Your task to perform on an android device: Go to ESPN.com Image 0: 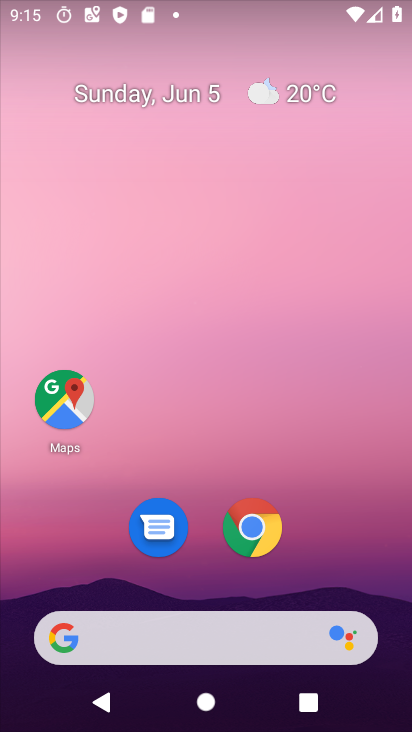
Step 0: drag from (345, 553) to (376, 61)
Your task to perform on an android device: Go to ESPN.com Image 1: 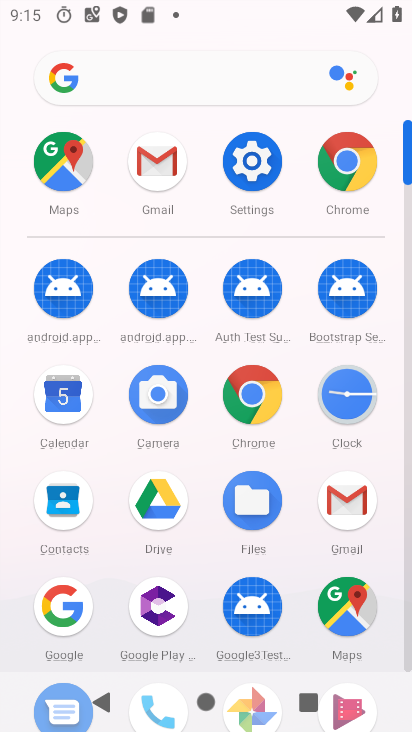
Step 1: click (341, 160)
Your task to perform on an android device: Go to ESPN.com Image 2: 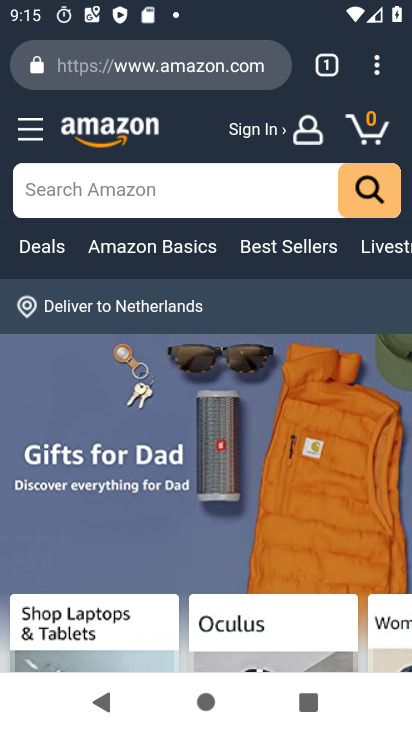
Step 2: click (233, 81)
Your task to perform on an android device: Go to ESPN.com Image 3: 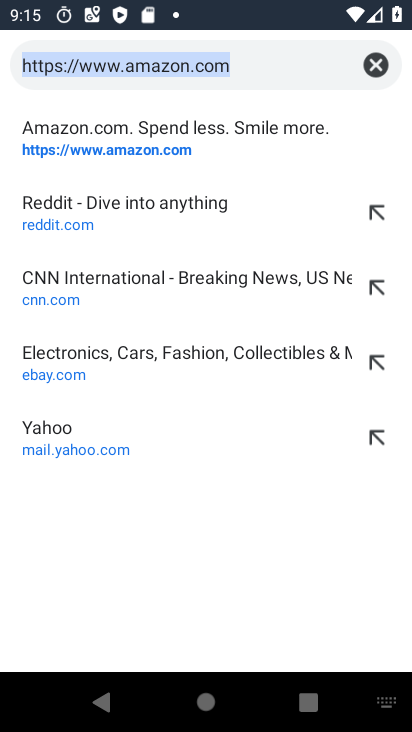
Step 3: click (382, 80)
Your task to perform on an android device: Go to ESPN.com Image 4: 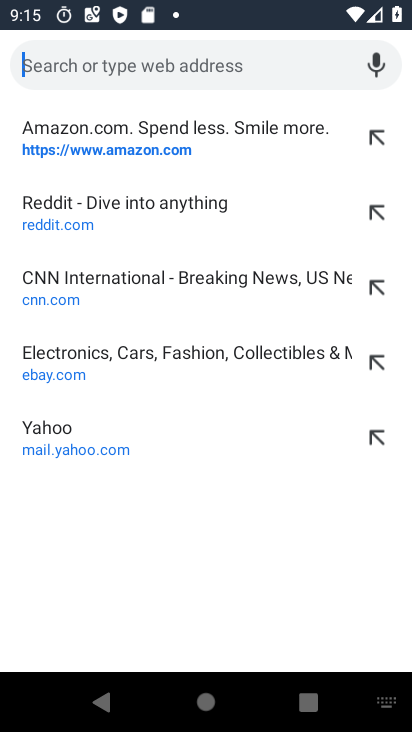
Step 4: type "espan"
Your task to perform on an android device: Go to ESPN.com Image 5: 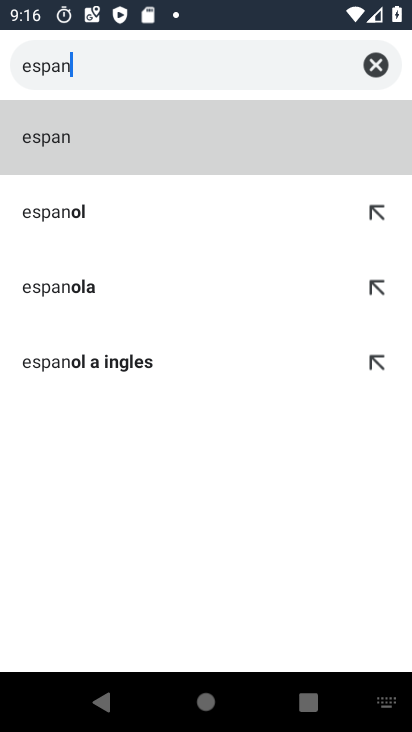
Step 5: click (382, 76)
Your task to perform on an android device: Go to ESPN.com Image 6: 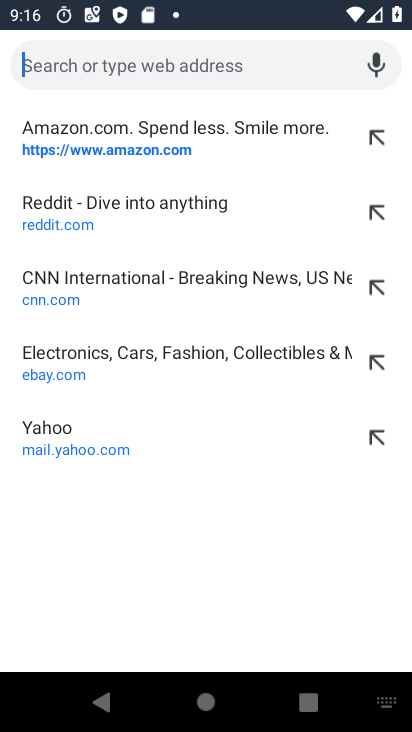
Step 6: type "espn"
Your task to perform on an android device: Go to ESPN.com Image 7: 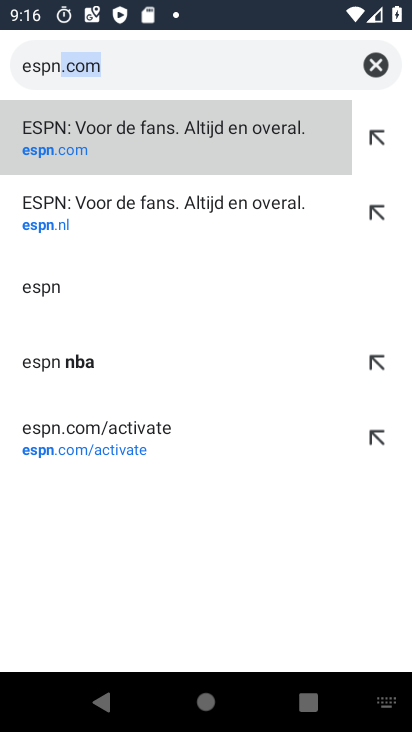
Step 7: click (82, 155)
Your task to perform on an android device: Go to ESPN.com Image 8: 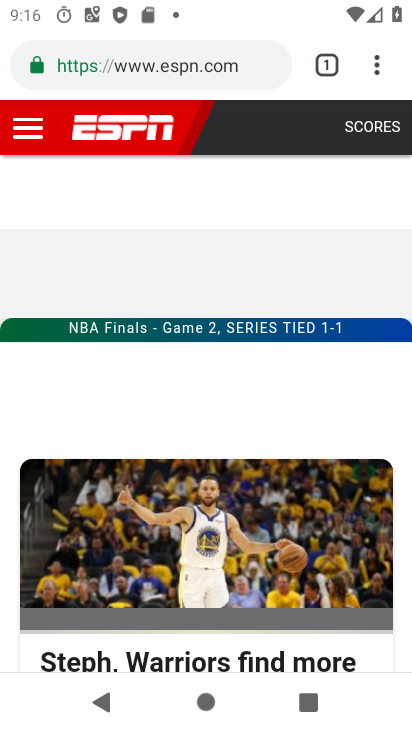
Step 8: task complete